Your task to perform on an android device: open a new tab in the chrome app Image 0: 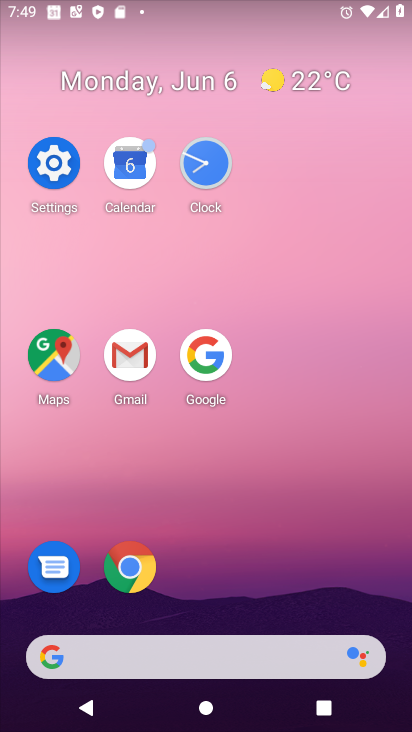
Step 0: click (133, 577)
Your task to perform on an android device: open a new tab in the chrome app Image 1: 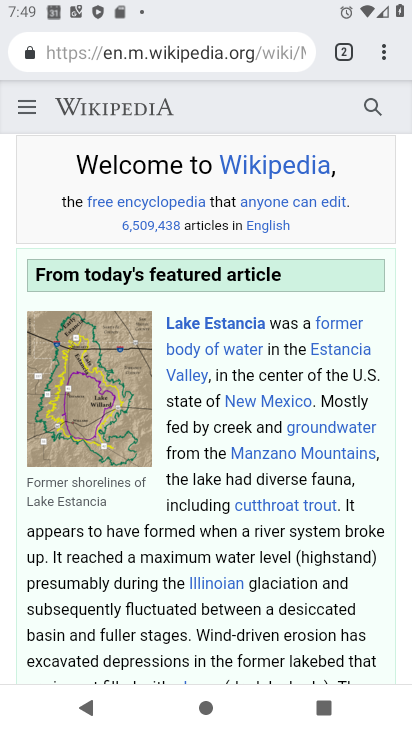
Step 1: click (335, 52)
Your task to perform on an android device: open a new tab in the chrome app Image 2: 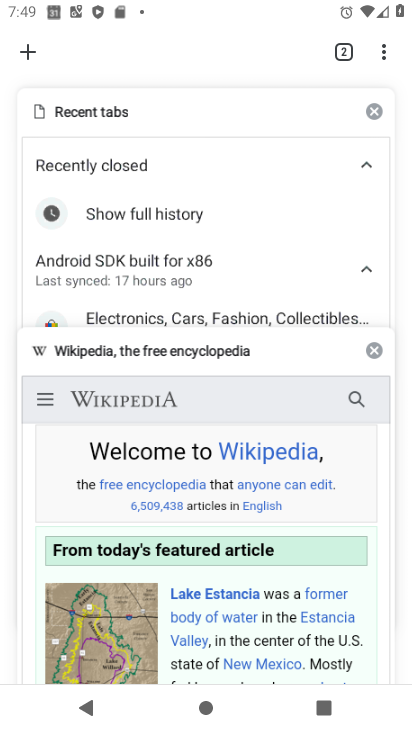
Step 2: click (36, 59)
Your task to perform on an android device: open a new tab in the chrome app Image 3: 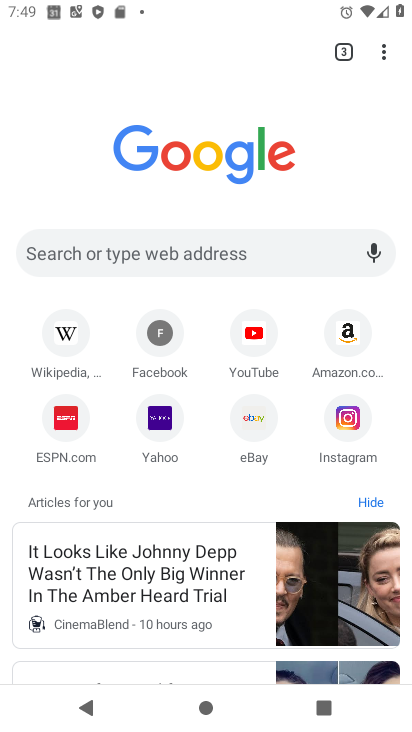
Step 3: task complete